Your task to perform on an android device: open app "Chime – Mobile Banking" Image 0: 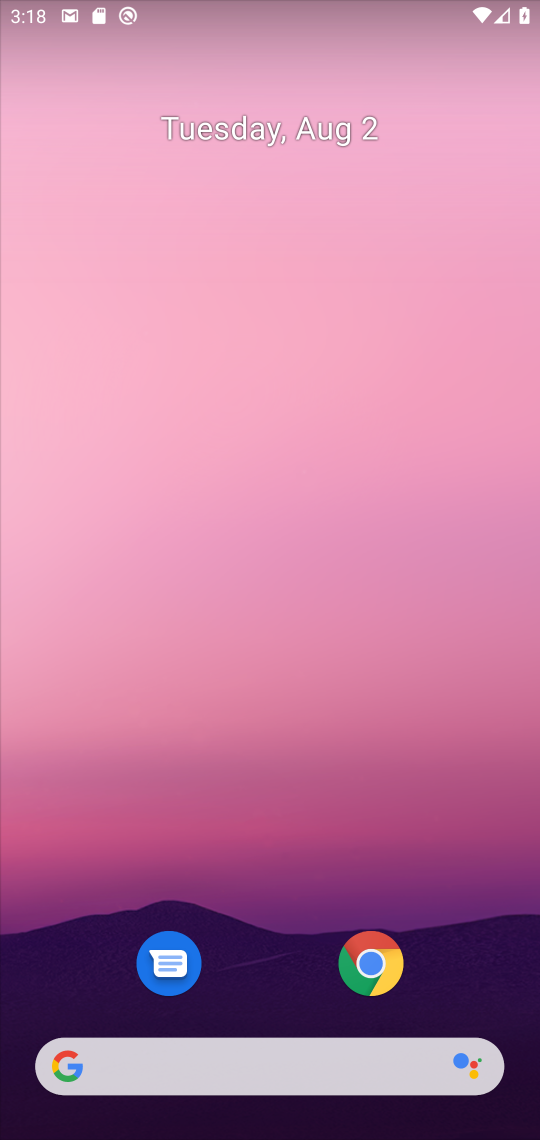
Step 0: drag from (273, 956) to (381, 15)
Your task to perform on an android device: open app "Chime – Mobile Banking" Image 1: 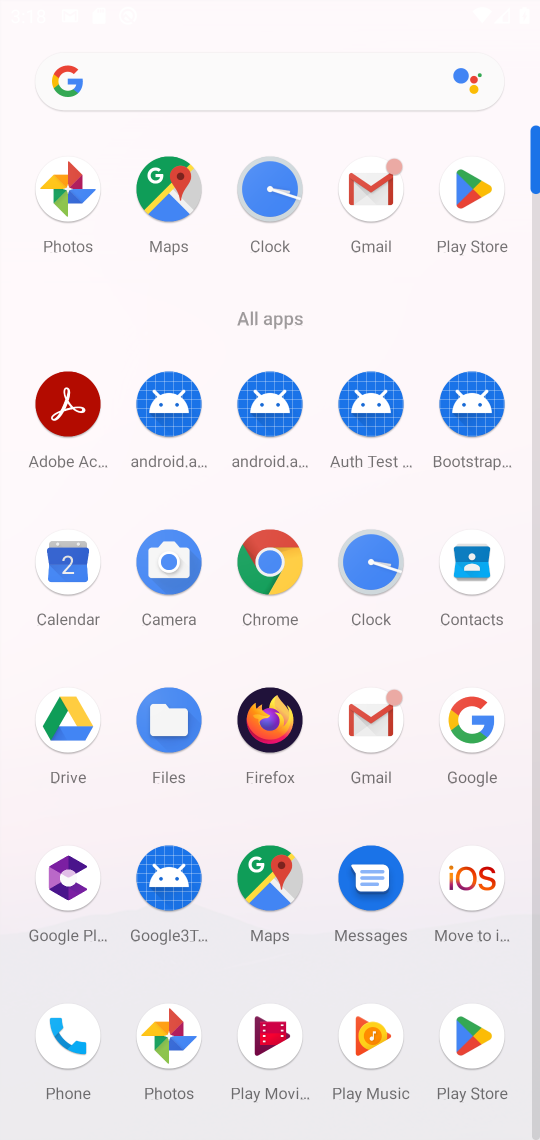
Step 1: click (477, 226)
Your task to perform on an android device: open app "Chime – Mobile Banking" Image 2: 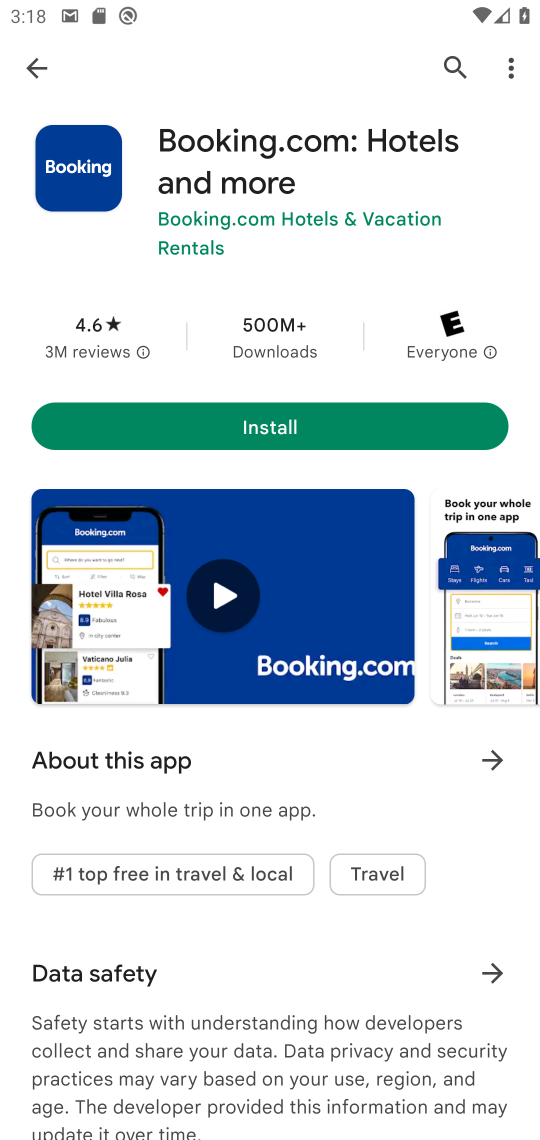
Step 2: click (445, 69)
Your task to perform on an android device: open app "Chime – Mobile Banking" Image 3: 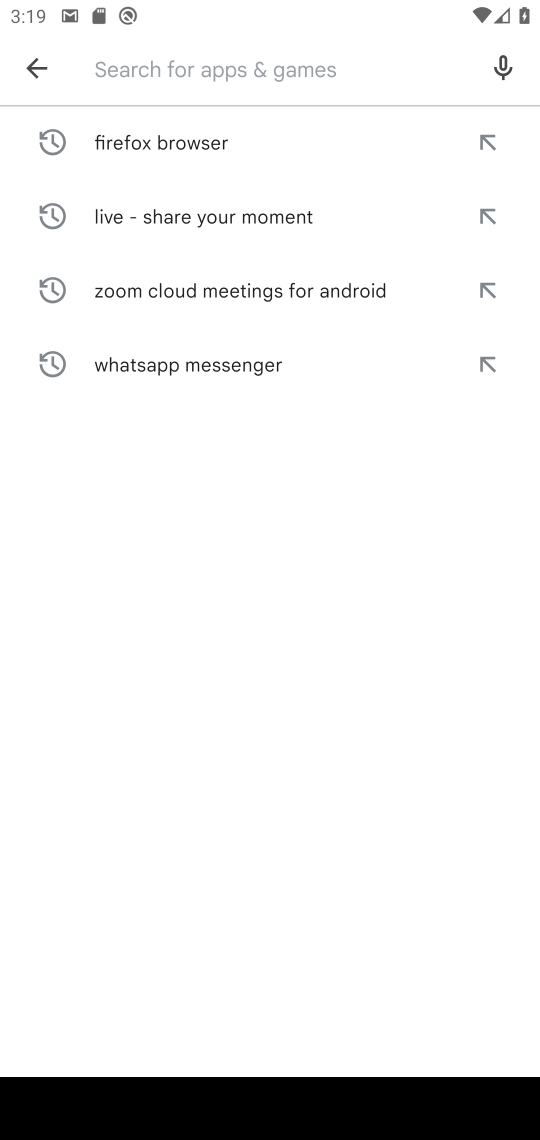
Step 3: type "chime - mobile banking"
Your task to perform on an android device: open app "Chime – Mobile Banking" Image 4: 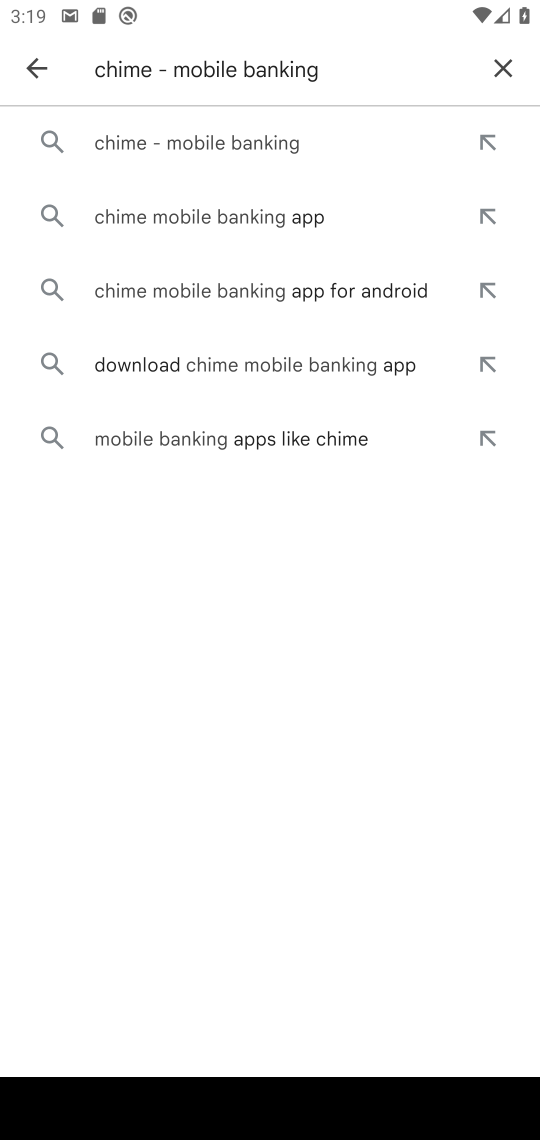
Step 4: click (163, 130)
Your task to perform on an android device: open app "Chime – Mobile Banking" Image 5: 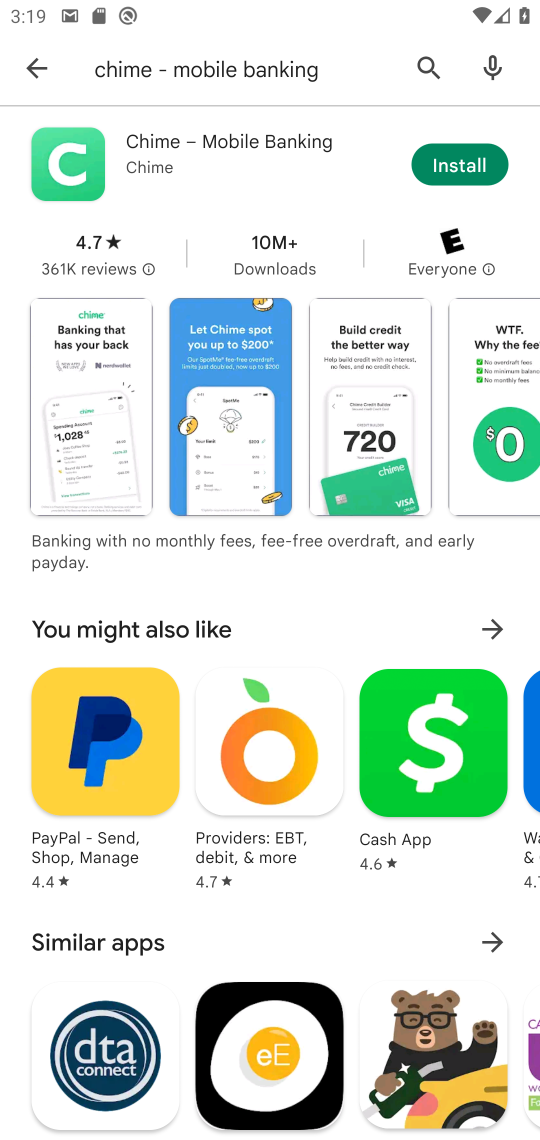
Step 5: click (273, 116)
Your task to perform on an android device: open app "Chime – Mobile Banking" Image 6: 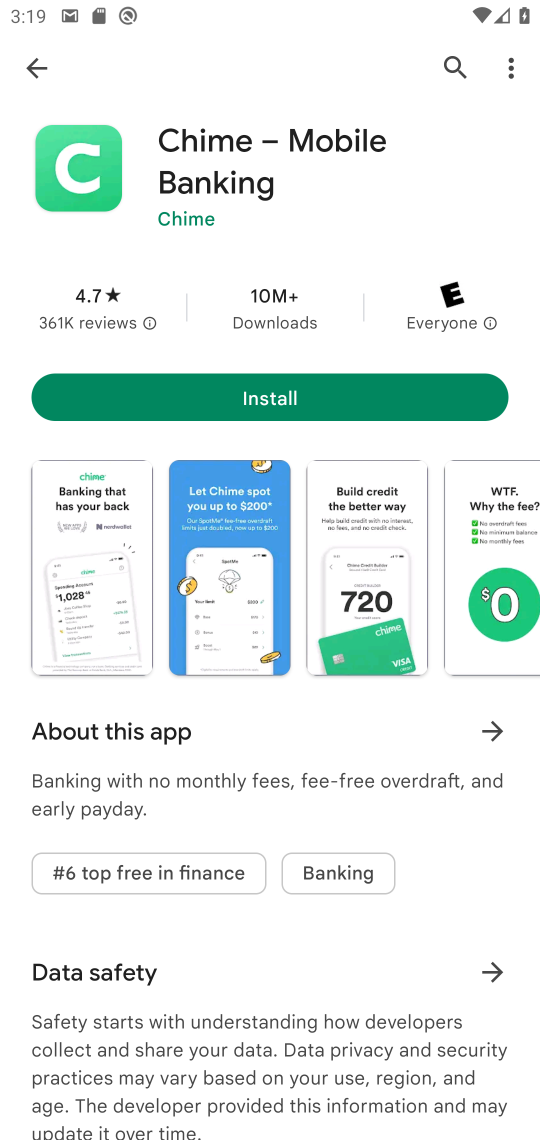
Step 6: task complete